Your task to perform on an android device: find photos in the google photos app Image 0: 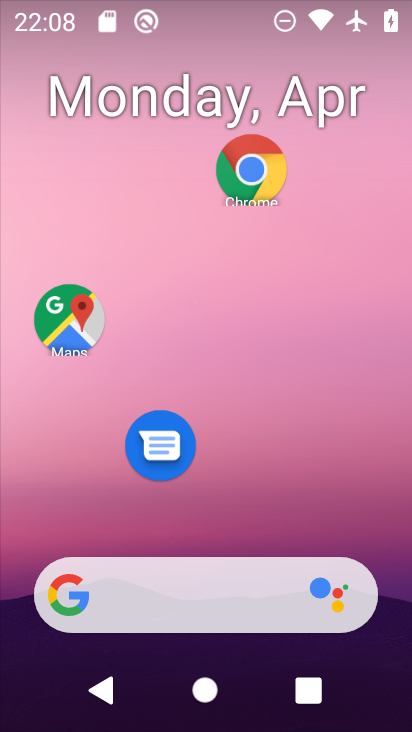
Step 0: drag from (210, 497) to (219, 128)
Your task to perform on an android device: find photos in the google photos app Image 1: 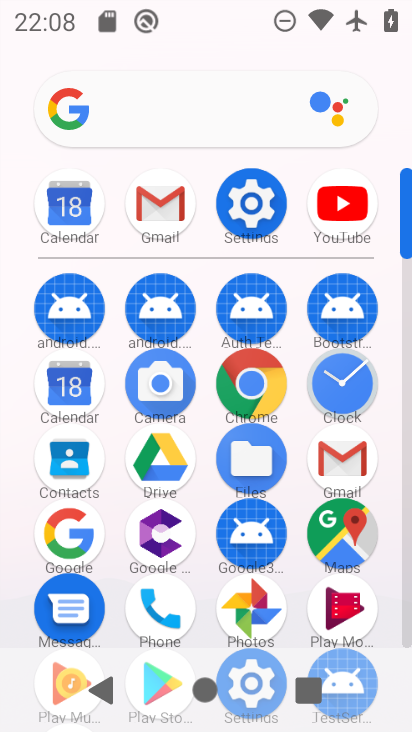
Step 1: click (257, 609)
Your task to perform on an android device: find photos in the google photos app Image 2: 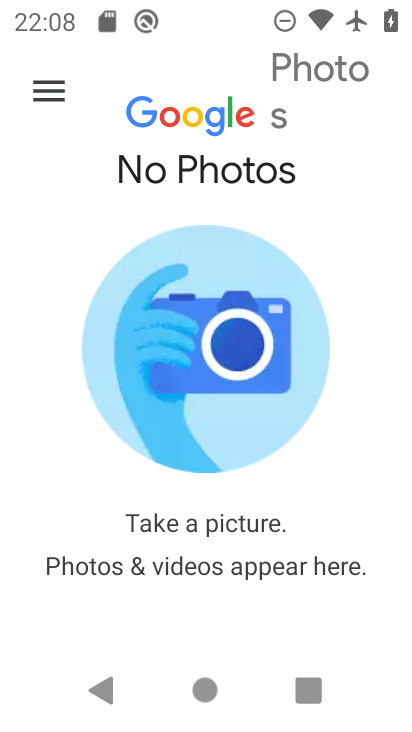
Step 2: click (57, 85)
Your task to perform on an android device: find photos in the google photos app Image 3: 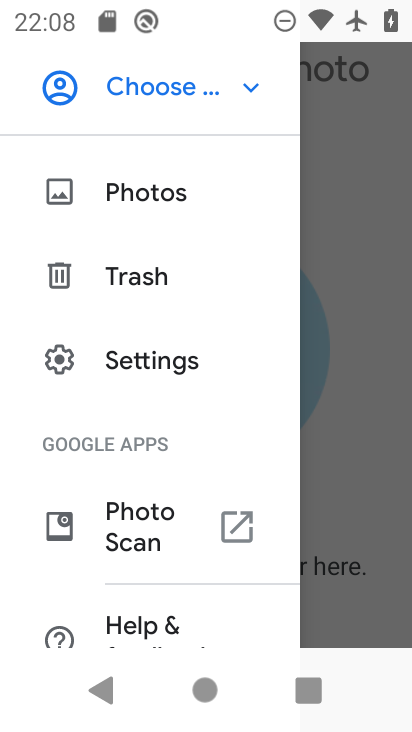
Step 3: click (146, 195)
Your task to perform on an android device: find photos in the google photos app Image 4: 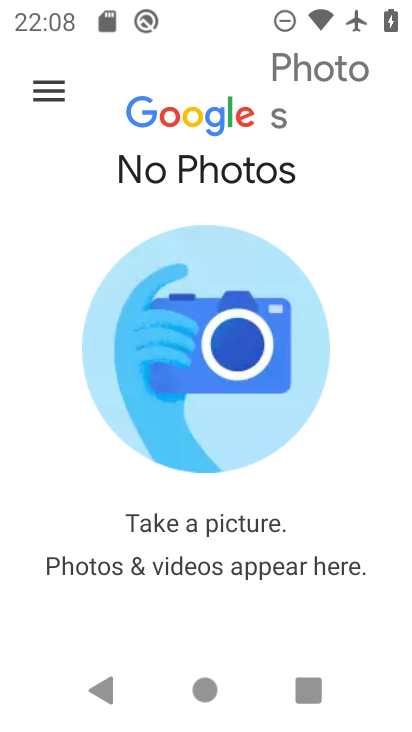
Step 4: click (196, 370)
Your task to perform on an android device: find photos in the google photos app Image 5: 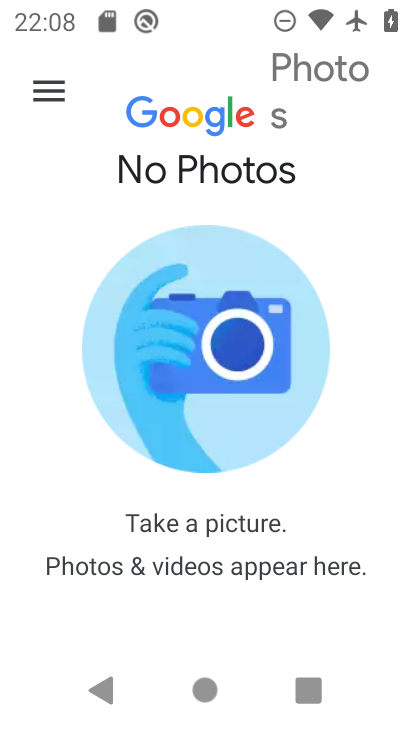
Step 5: click (33, 96)
Your task to perform on an android device: find photos in the google photos app Image 6: 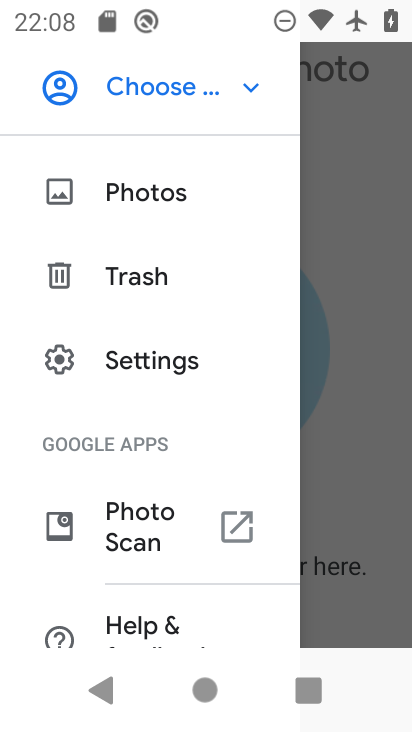
Step 6: task complete